Your task to perform on an android device: Open the Play Movies app and select the watchlist tab. Image 0: 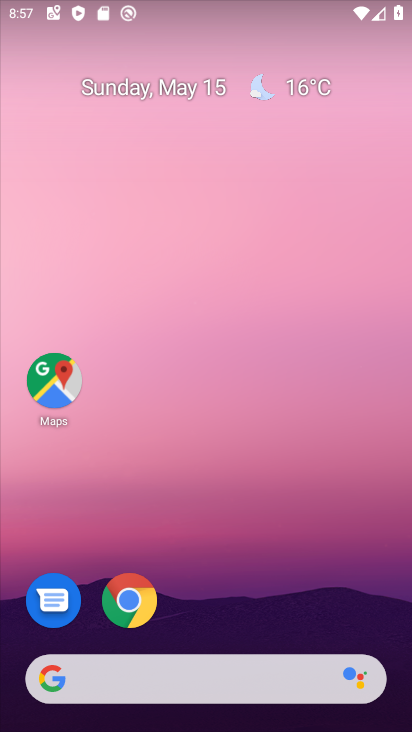
Step 0: drag from (286, 517) to (350, 17)
Your task to perform on an android device: Open the Play Movies app and select the watchlist tab. Image 1: 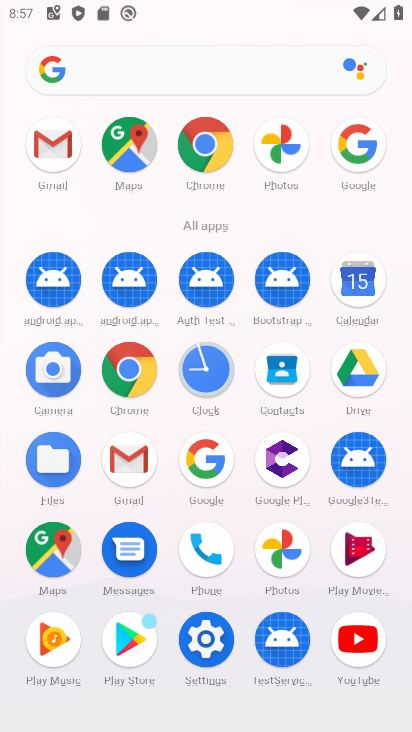
Step 1: click (361, 542)
Your task to perform on an android device: Open the Play Movies app and select the watchlist tab. Image 2: 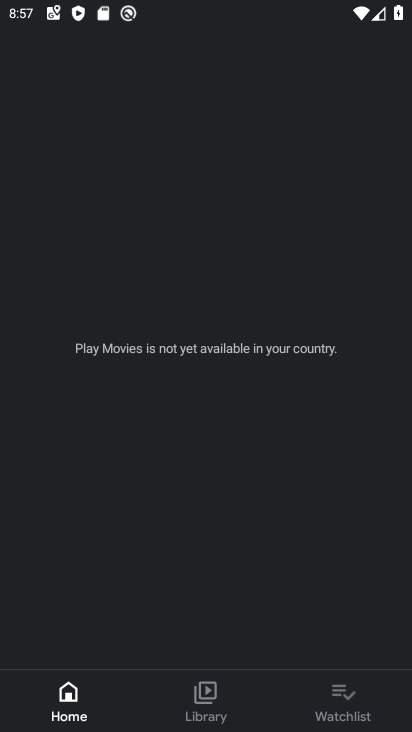
Step 2: click (347, 704)
Your task to perform on an android device: Open the Play Movies app and select the watchlist tab. Image 3: 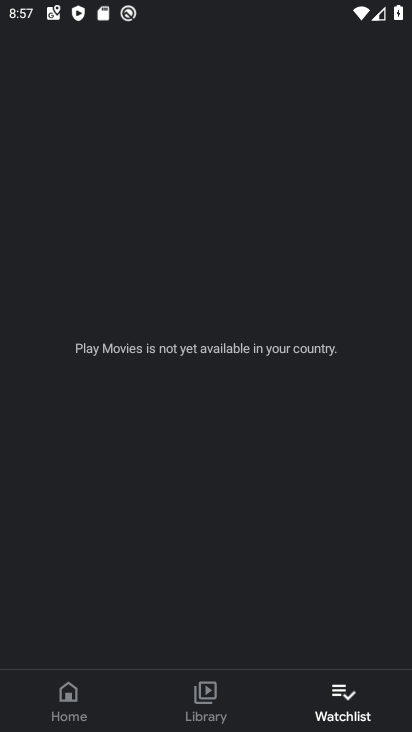
Step 3: task complete